Your task to perform on an android device: visit the assistant section in the google photos Image 0: 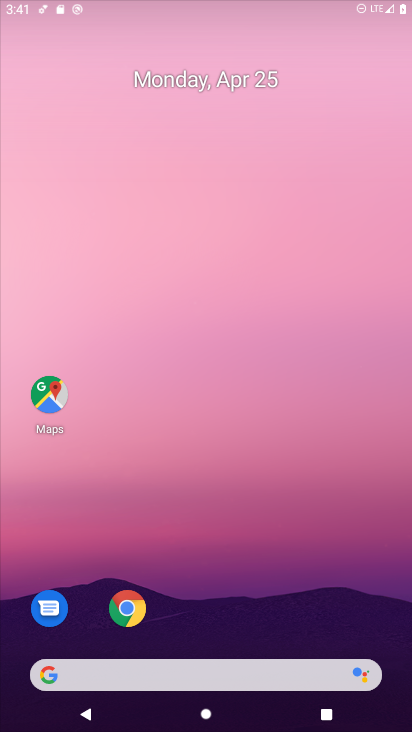
Step 0: drag from (254, 667) to (289, 202)
Your task to perform on an android device: visit the assistant section in the google photos Image 1: 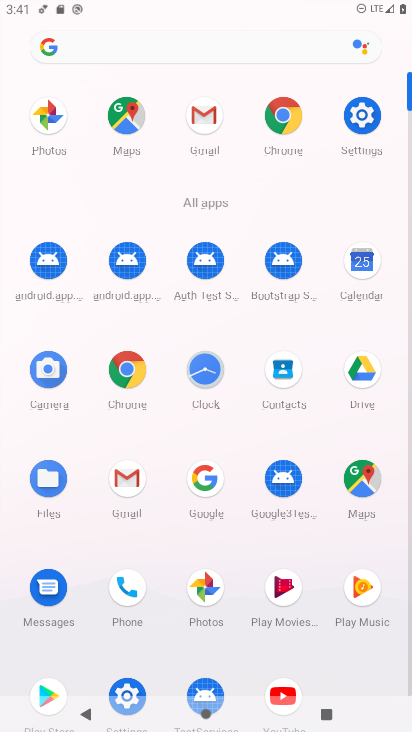
Step 1: click (210, 593)
Your task to perform on an android device: visit the assistant section in the google photos Image 2: 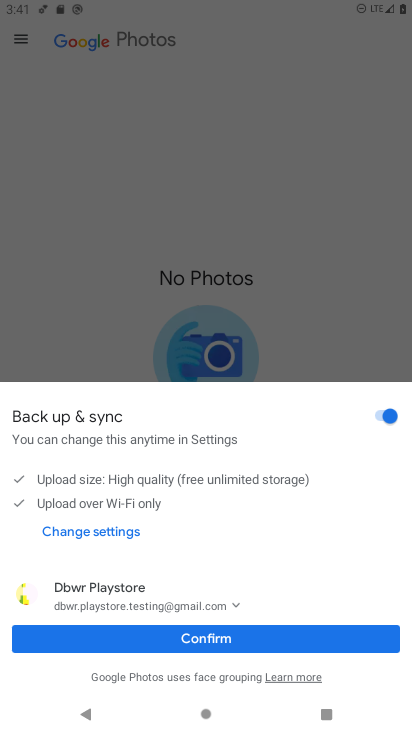
Step 2: click (182, 639)
Your task to perform on an android device: visit the assistant section in the google photos Image 3: 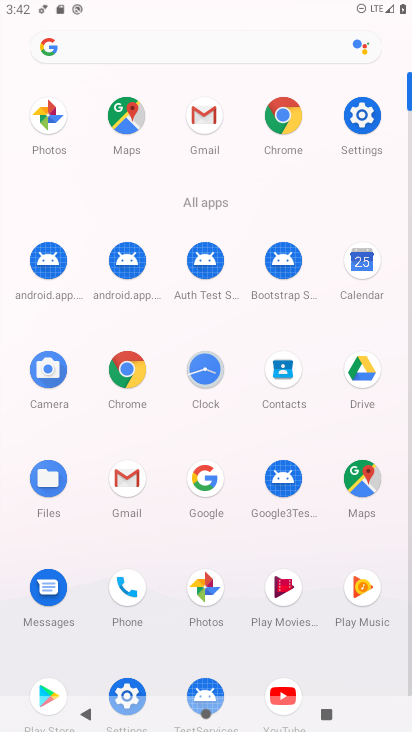
Step 3: click (210, 583)
Your task to perform on an android device: visit the assistant section in the google photos Image 4: 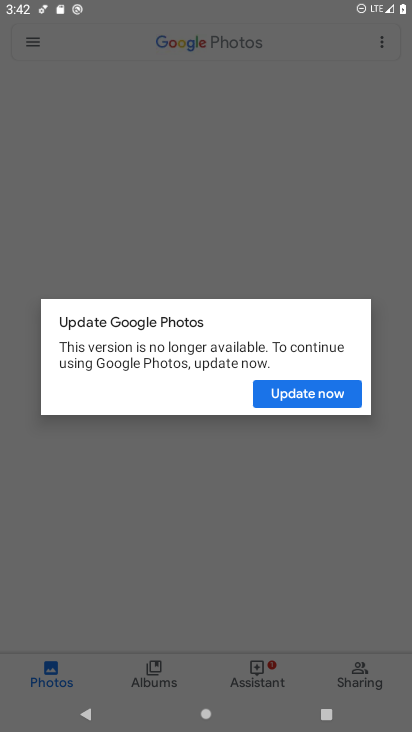
Step 4: click (295, 383)
Your task to perform on an android device: visit the assistant section in the google photos Image 5: 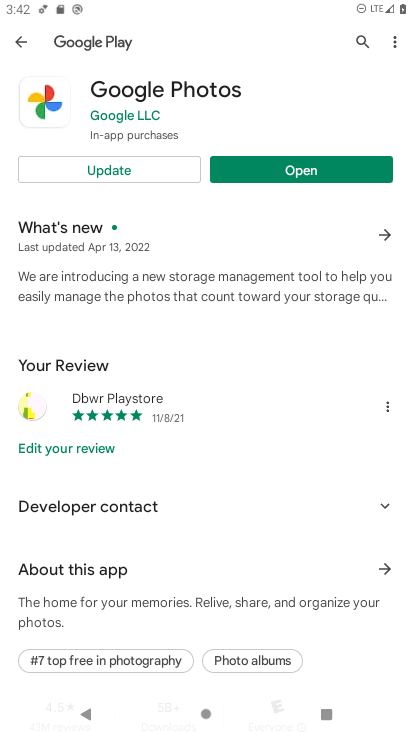
Step 5: click (297, 164)
Your task to perform on an android device: visit the assistant section in the google photos Image 6: 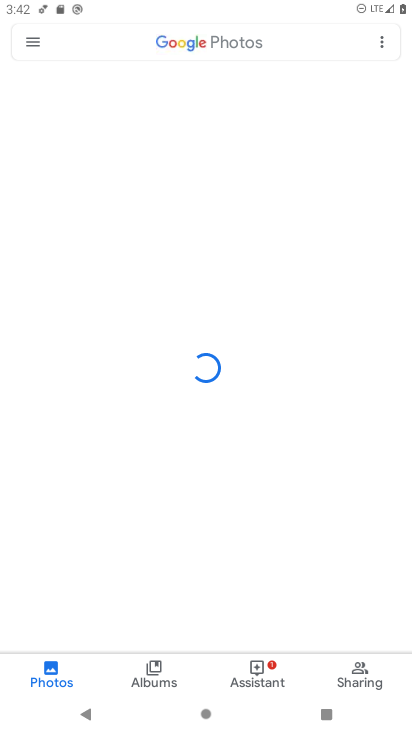
Step 6: click (256, 678)
Your task to perform on an android device: visit the assistant section in the google photos Image 7: 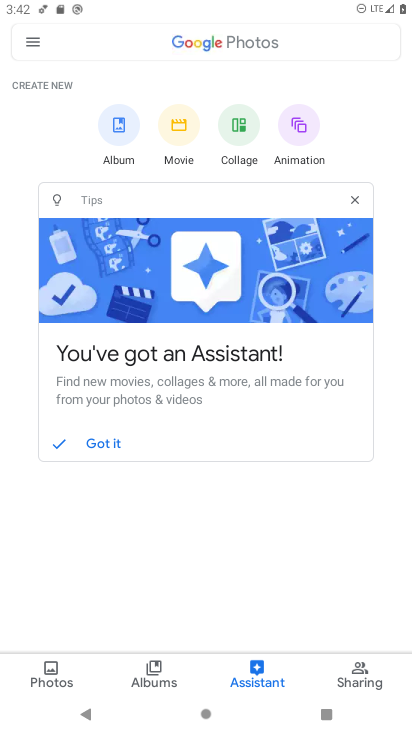
Step 7: task complete